Your task to perform on an android device: Search for jbl flip 4 on amazon, select the first entry, add it to the cart, then select checkout. Image 0: 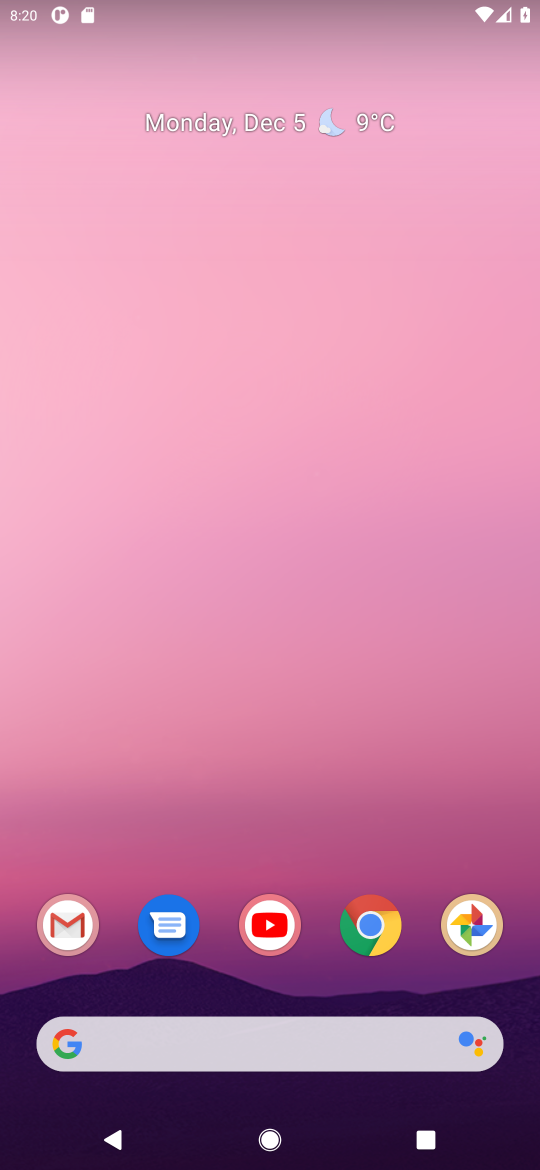
Step 0: click (370, 928)
Your task to perform on an android device: Search for jbl flip 4 on amazon, select the first entry, add it to the cart, then select checkout. Image 1: 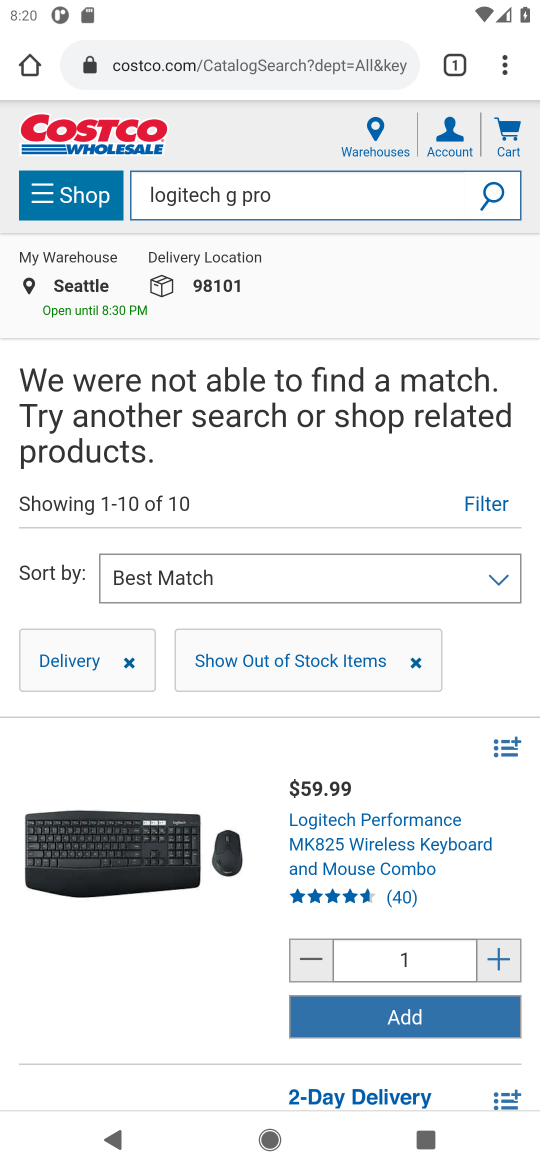
Step 1: click (213, 75)
Your task to perform on an android device: Search for jbl flip 4 on amazon, select the first entry, add it to the cart, then select checkout. Image 2: 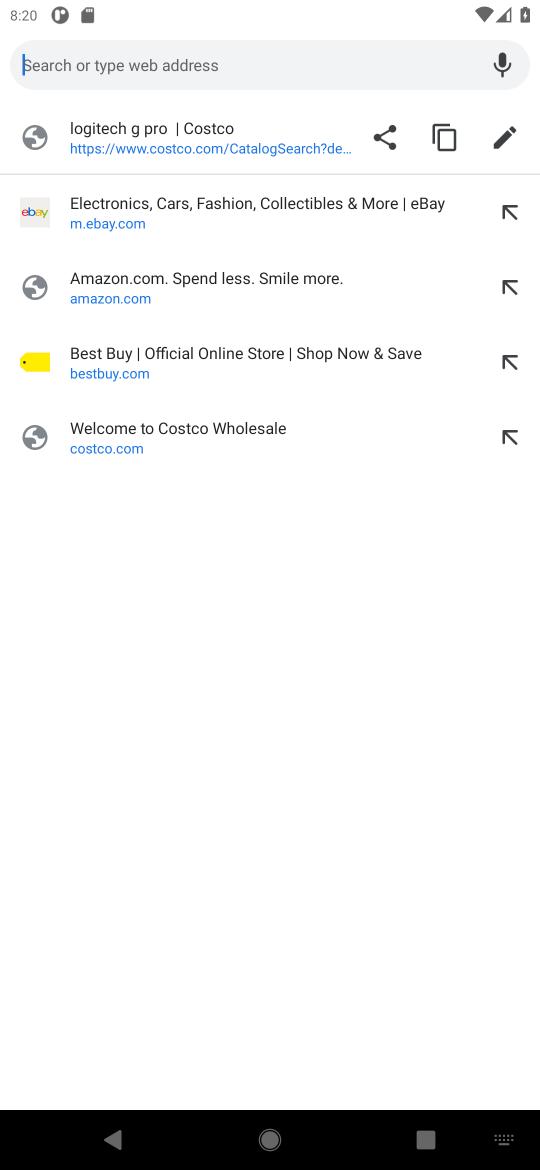
Step 2: click (89, 294)
Your task to perform on an android device: Search for jbl flip 4 on amazon, select the first entry, add it to the cart, then select checkout. Image 3: 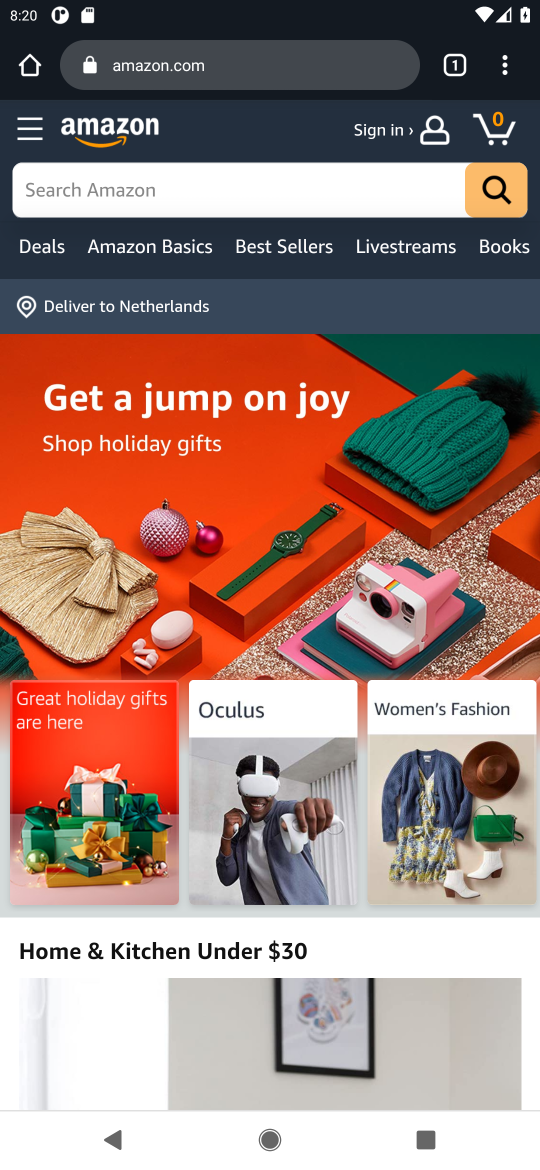
Step 3: click (115, 193)
Your task to perform on an android device: Search for jbl flip 4 on amazon, select the first entry, add it to the cart, then select checkout. Image 4: 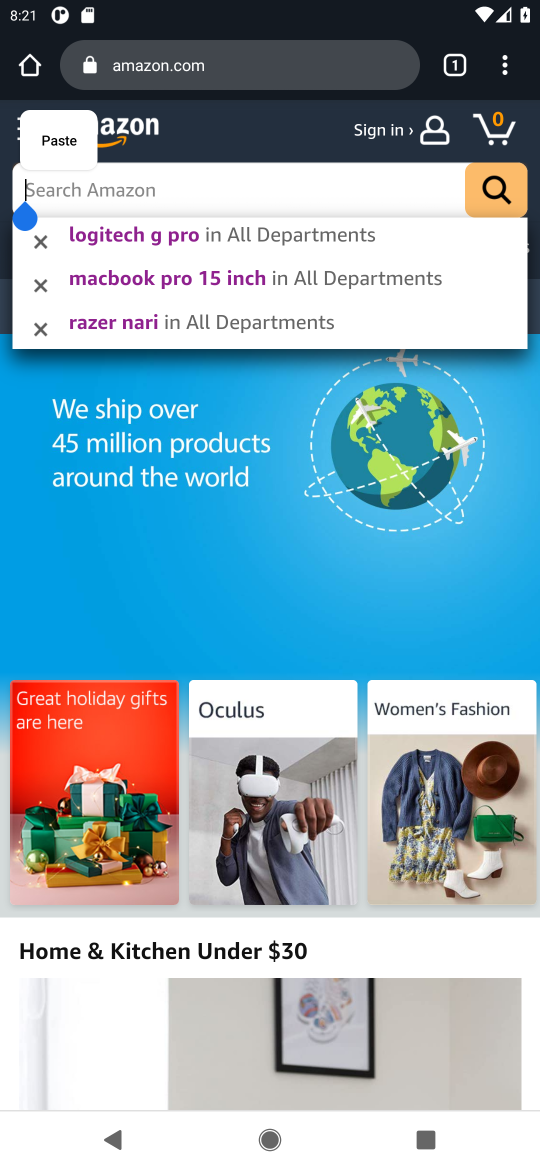
Step 4: type "jbl flip 4"
Your task to perform on an android device: Search for jbl flip 4 on amazon, select the first entry, add it to the cart, then select checkout. Image 5: 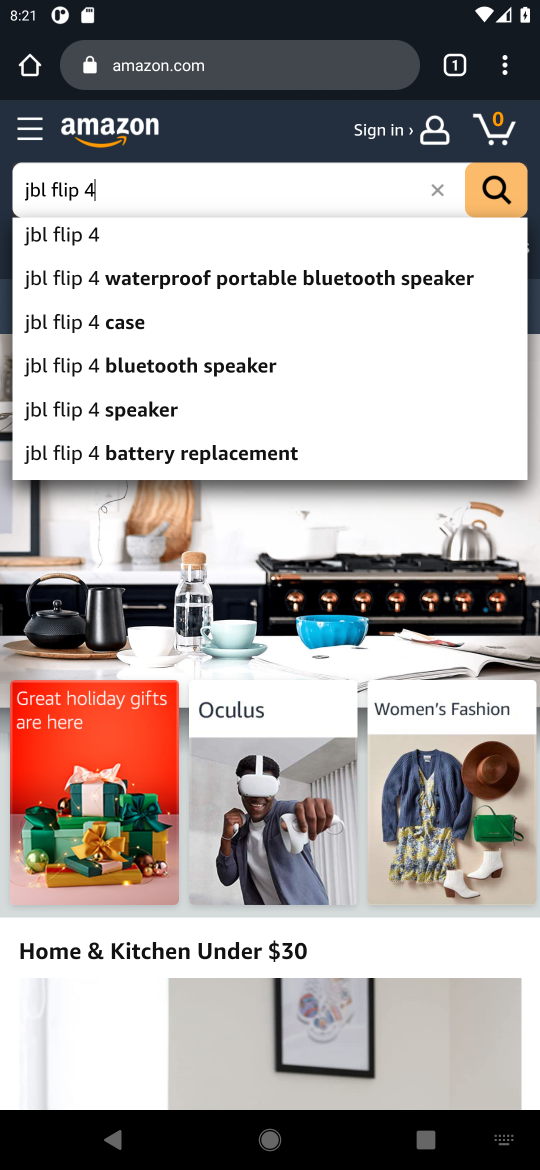
Step 5: click (61, 245)
Your task to perform on an android device: Search for jbl flip 4 on amazon, select the first entry, add it to the cart, then select checkout. Image 6: 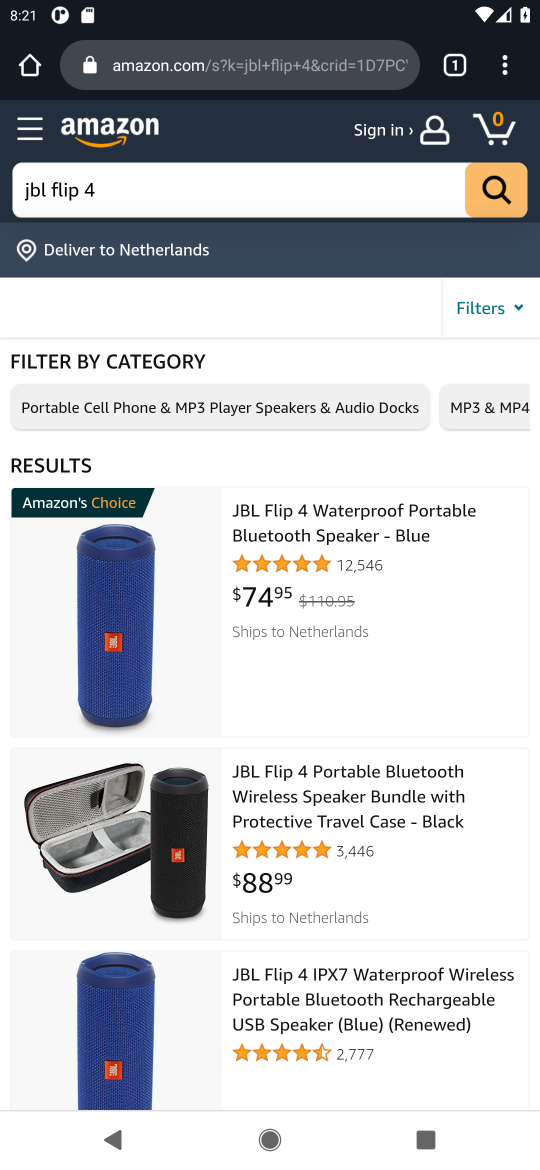
Step 6: click (284, 548)
Your task to perform on an android device: Search for jbl flip 4 on amazon, select the first entry, add it to the cart, then select checkout. Image 7: 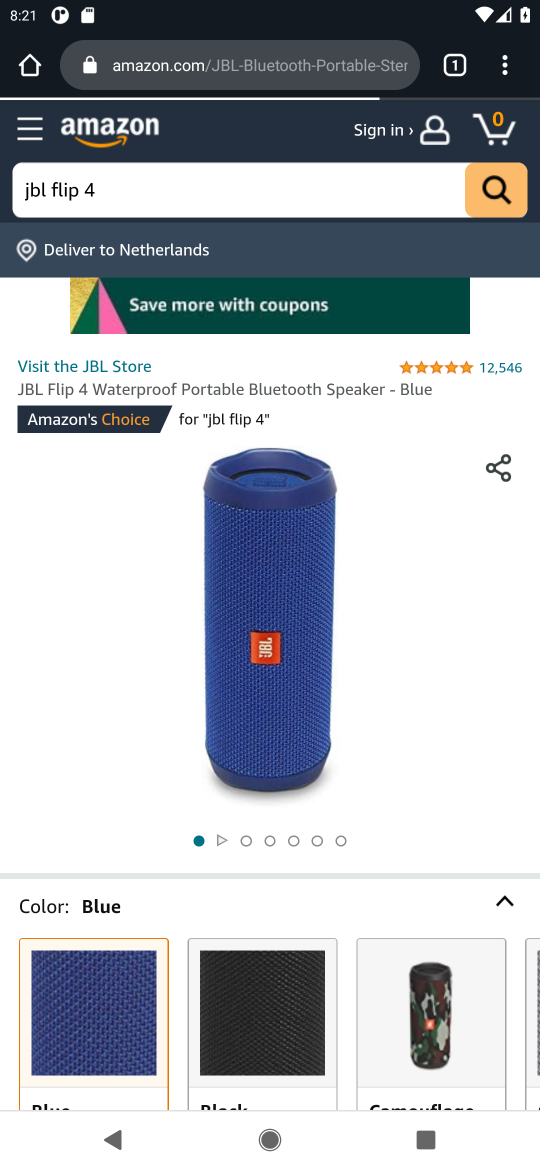
Step 7: drag from (339, 824) to (315, 283)
Your task to perform on an android device: Search for jbl flip 4 on amazon, select the first entry, add it to the cart, then select checkout. Image 8: 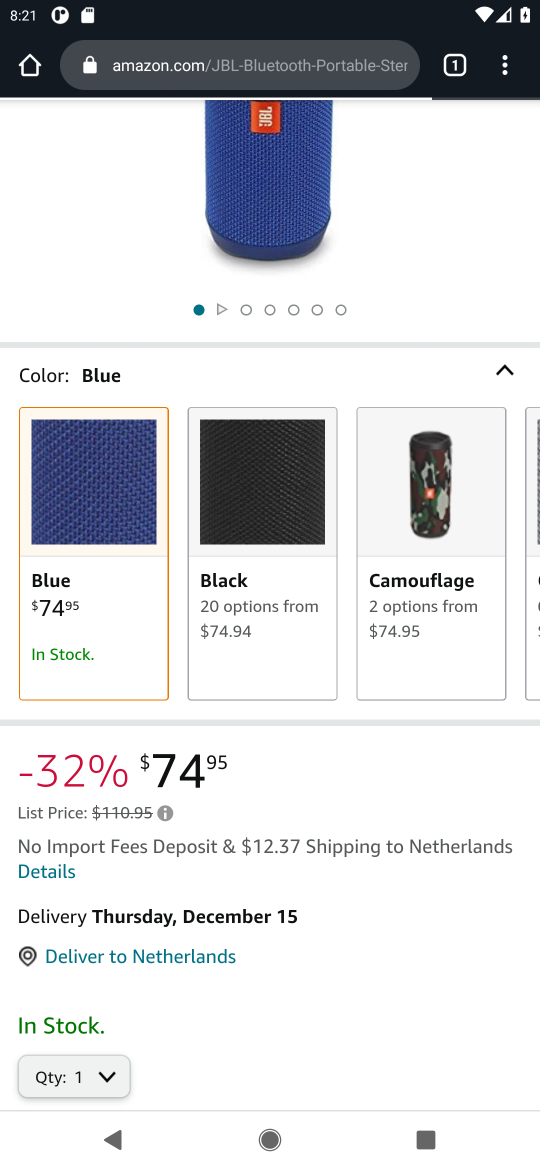
Step 8: drag from (273, 783) to (284, 318)
Your task to perform on an android device: Search for jbl flip 4 on amazon, select the first entry, add it to the cart, then select checkout. Image 9: 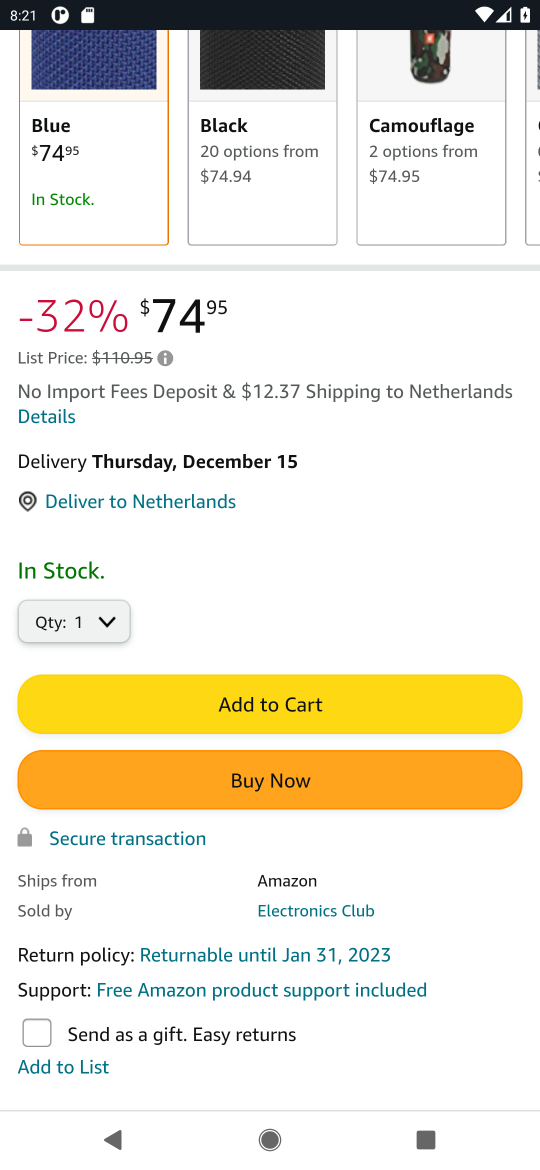
Step 9: click (250, 702)
Your task to perform on an android device: Search for jbl flip 4 on amazon, select the first entry, add it to the cart, then select checkout. Image 10: 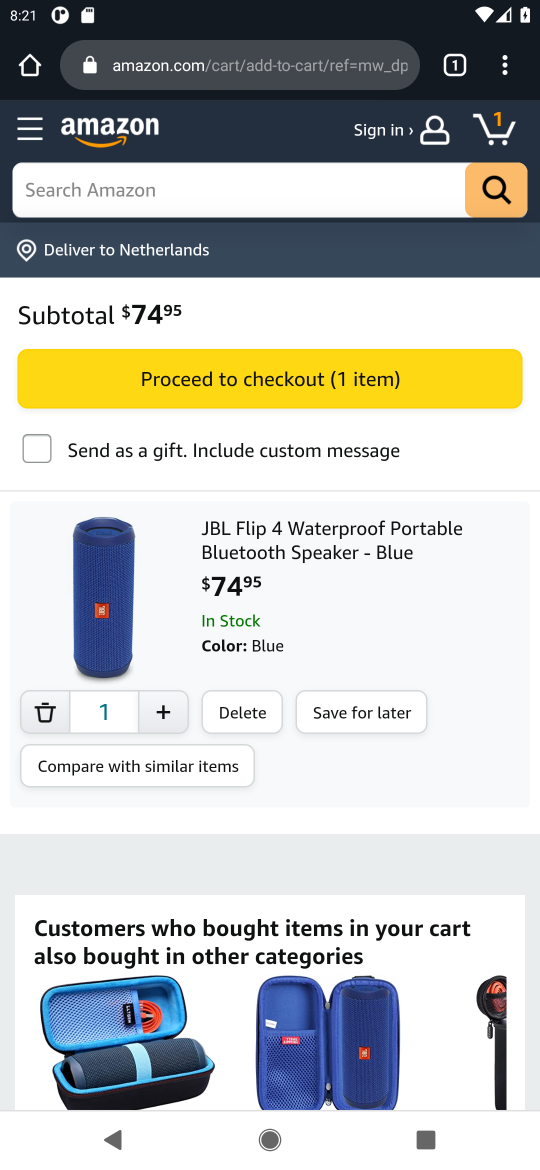
Step 10: click (238, 382)
Your task to perform on an android device: Search for jbl flip 4 on amazon, select the first entry, add it to the cart, then select checkout. Image 11: 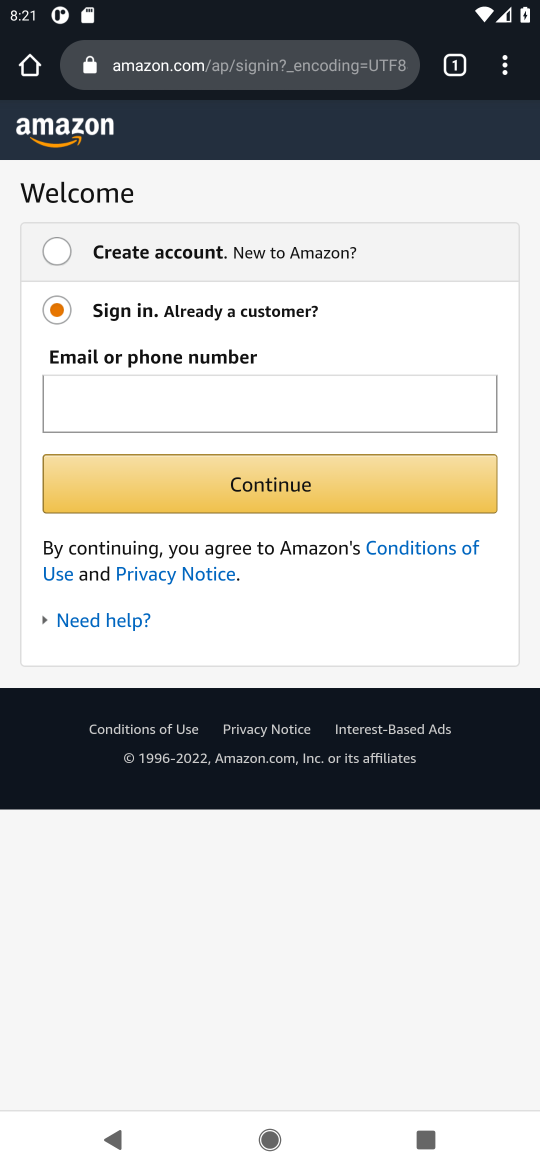
Step 11: task complete